Your task to perform on an android device: change timer sound Image 0: 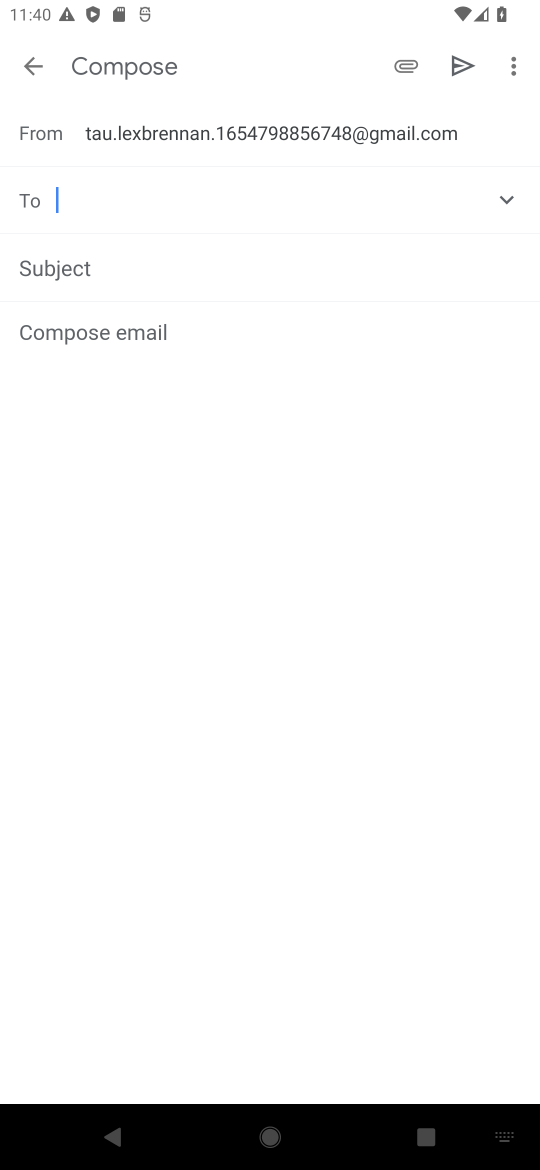
Step 0: press home button
Your task to perform on an android device: change timer sound Image 1: 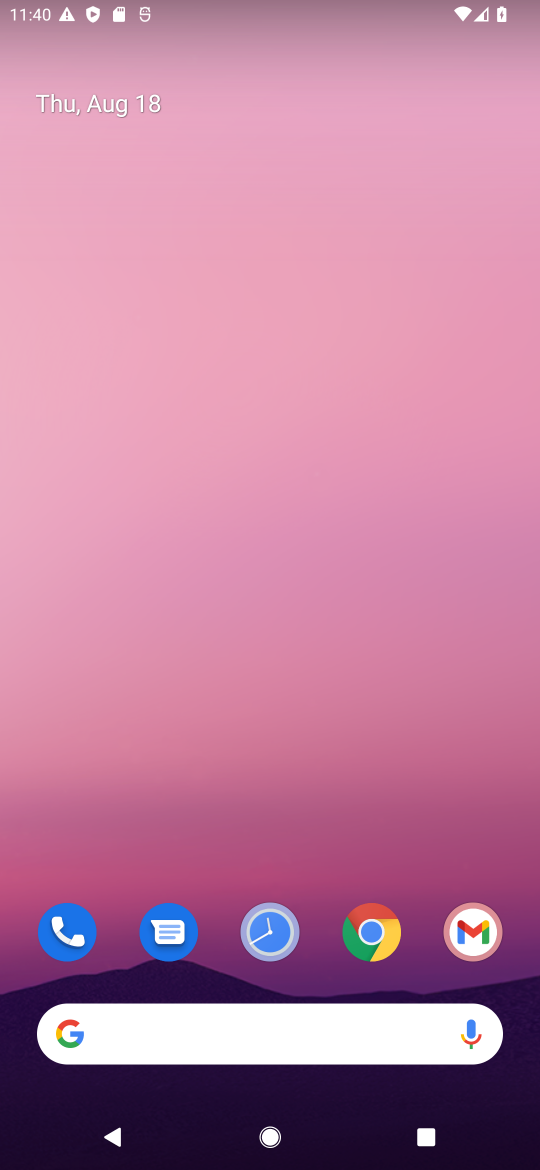
Step 1: click (262, 929)
Your task to perform on an android device: change timer sound Image 2: 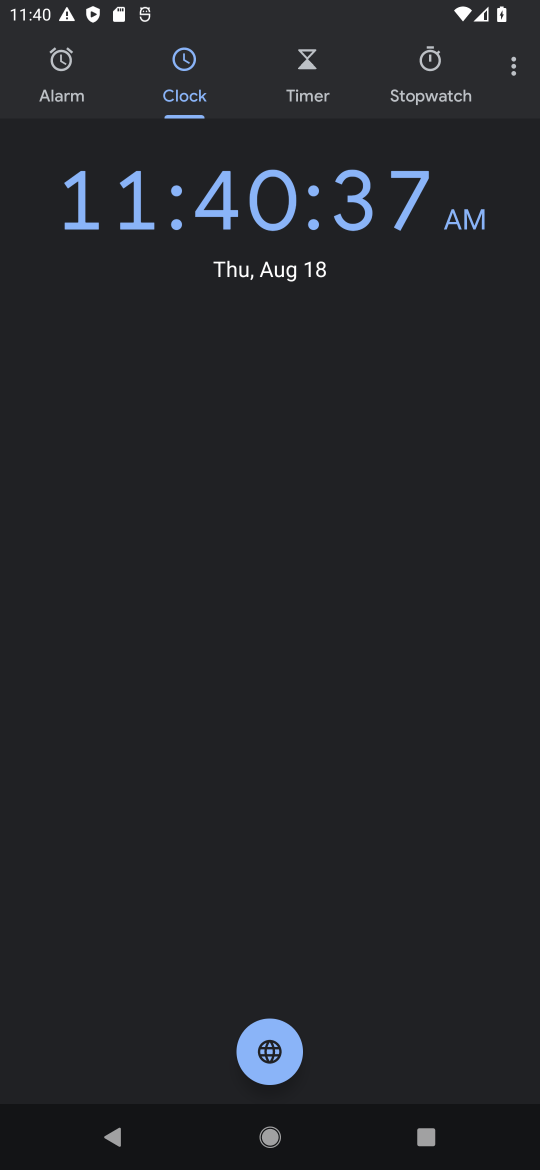
Step 2: click (509, 67)
Your task to perform on an android device: change timer sound Image 3: 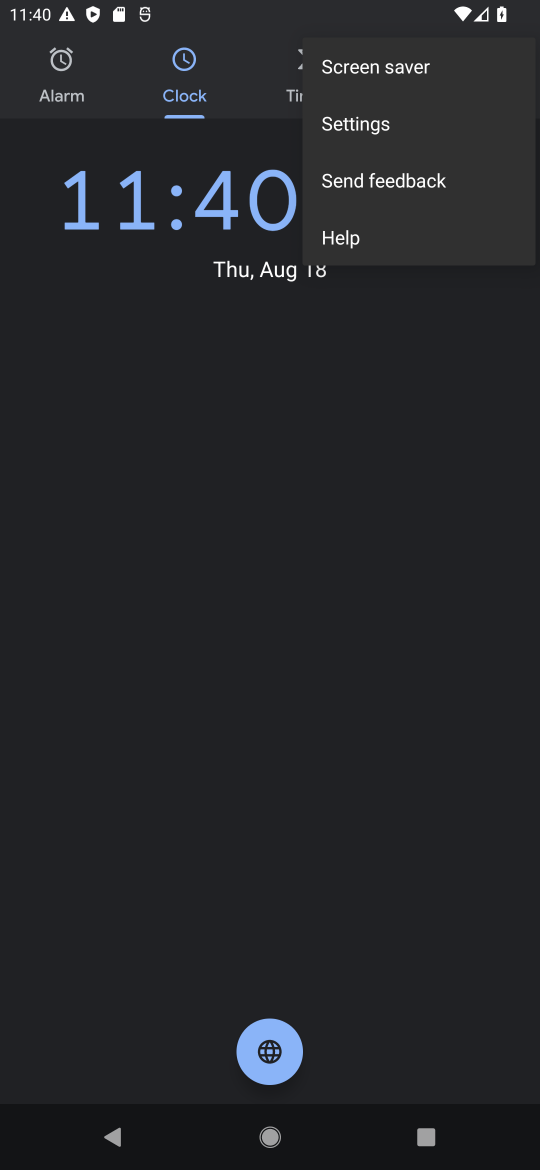
Step 3: click (356, 132)
Your task to perform on an android device: change timer sound Image 4: 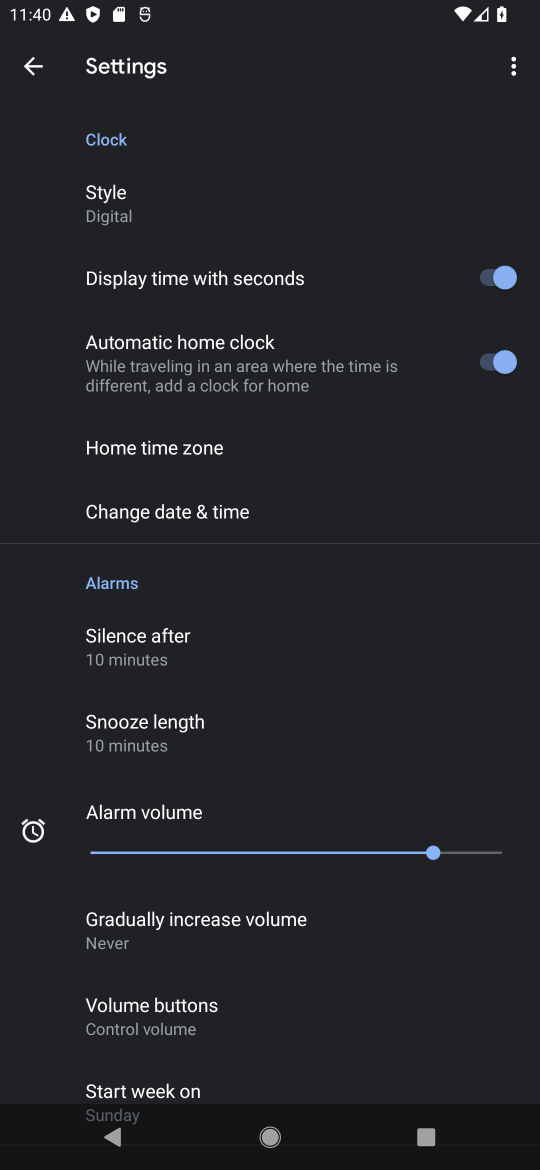
Step 4: drag from (318, 958) to (306, 420)
Your task to perform on an android device: change timer sound Image 5: 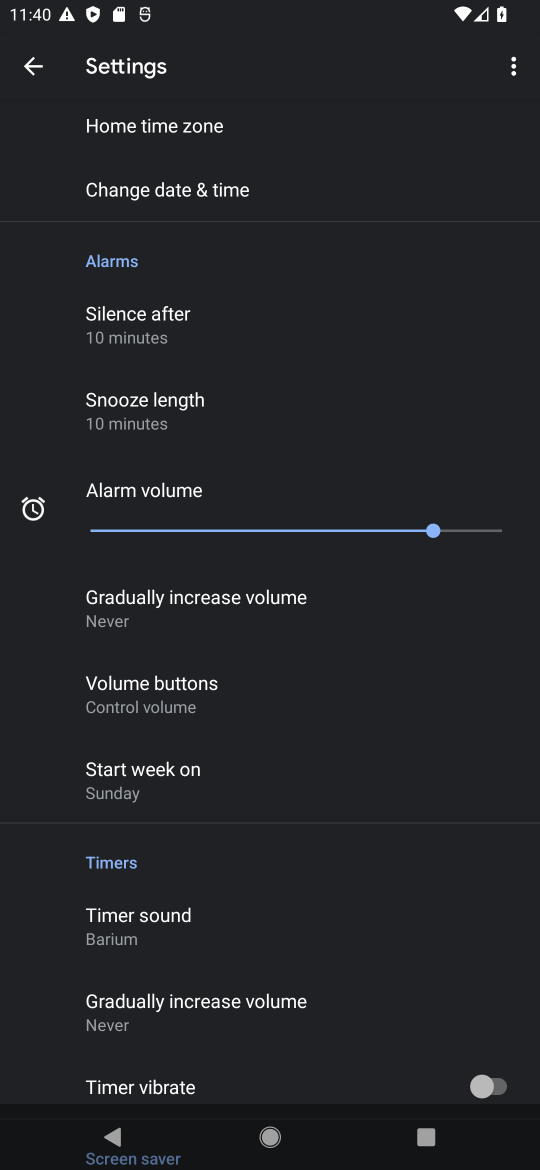
Step 5: click (118, 913)
Your task to perform on an android device: change timer sound Image 6: 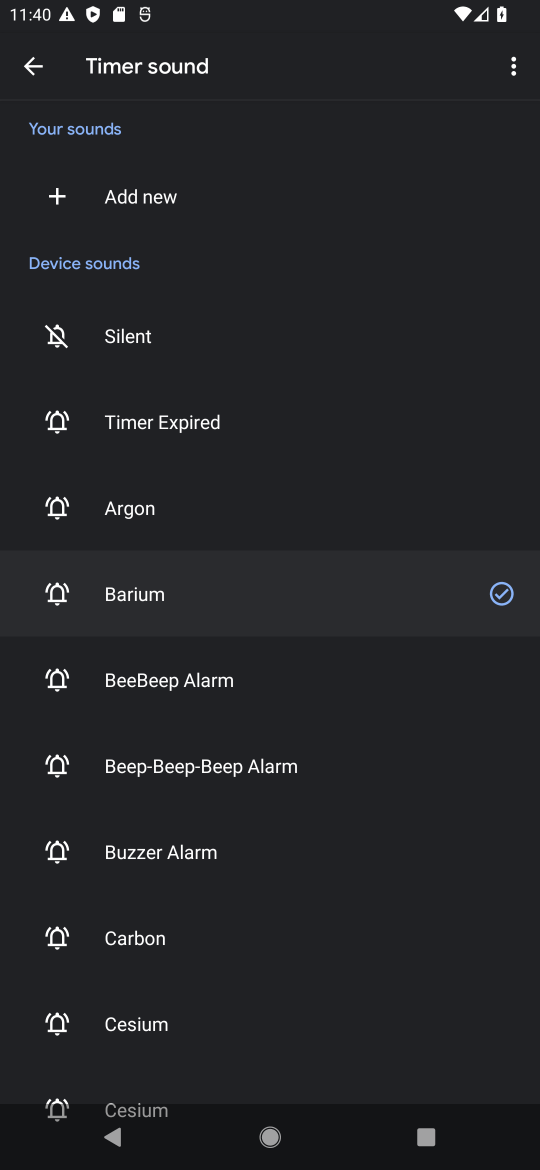
Step 6: click (161, 689)
Your task to perform on an android device: change timer sound Image 7: 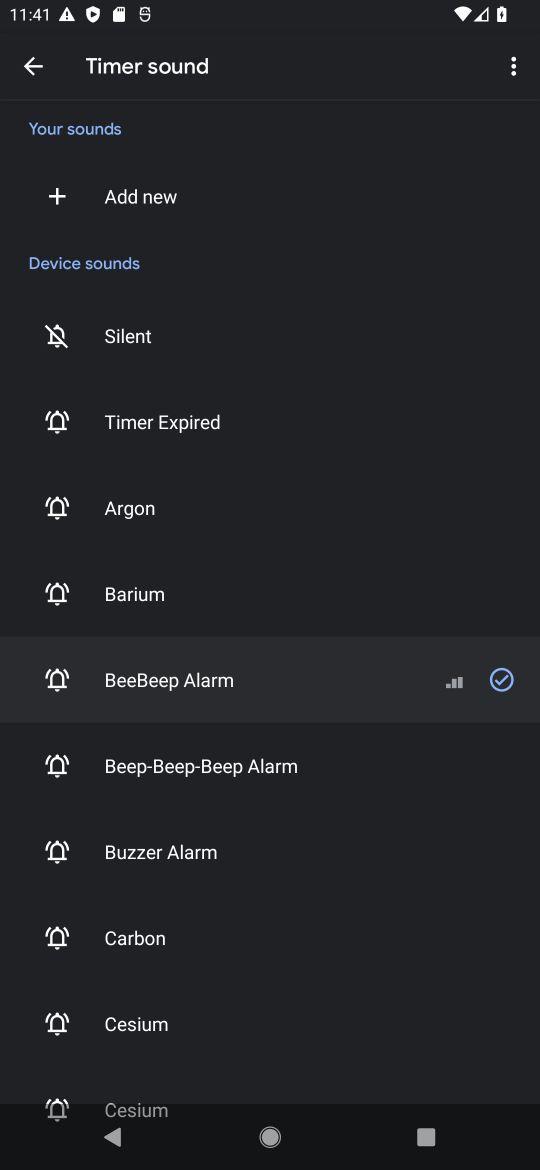
Step 7: task complete